Your task to perform on an android device: clear history in the chrome app Image 0: 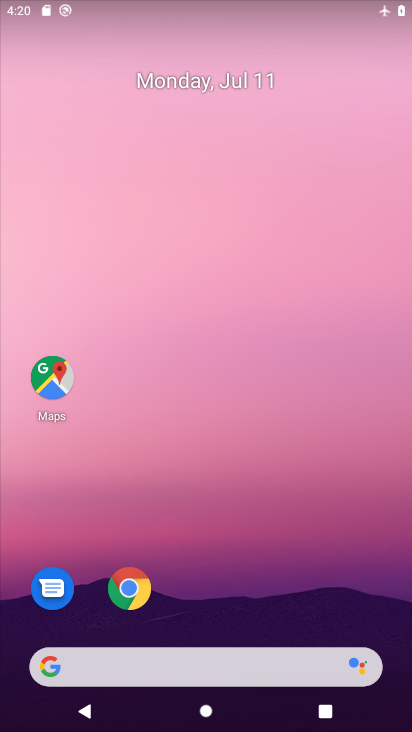
Step 0: drag from (346, 607) to (334, 190)
Your task to perform on an android device: clear history in the chrome app Image 1: 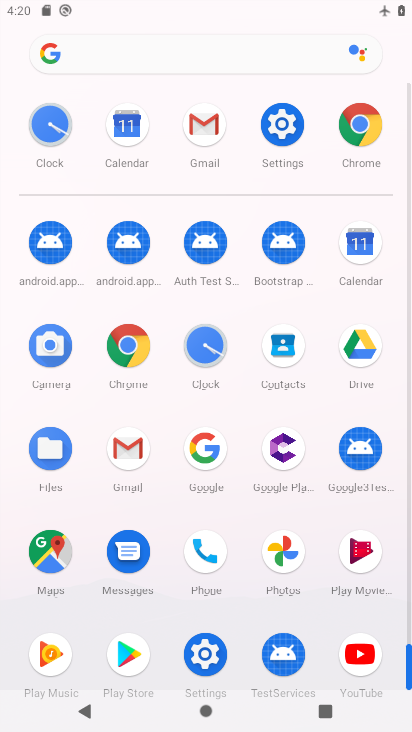
Step 1: click (139, 352)
Your task to perform on an android device: clear history in the chrome app Image 2: 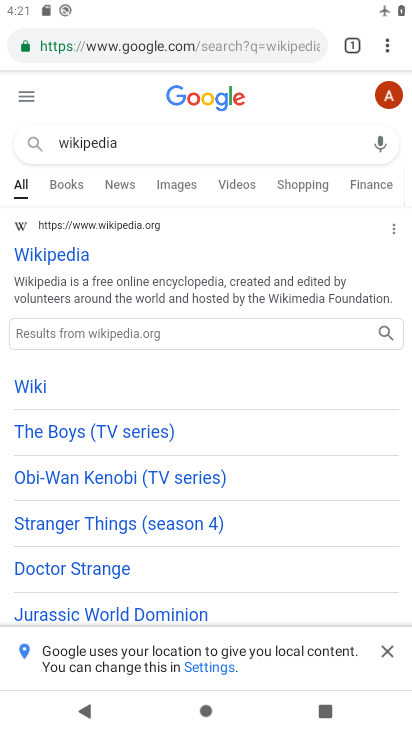
Step 2: click (383, 49)
Your task to perform on an android device: clear history in the chrome app Image 3: 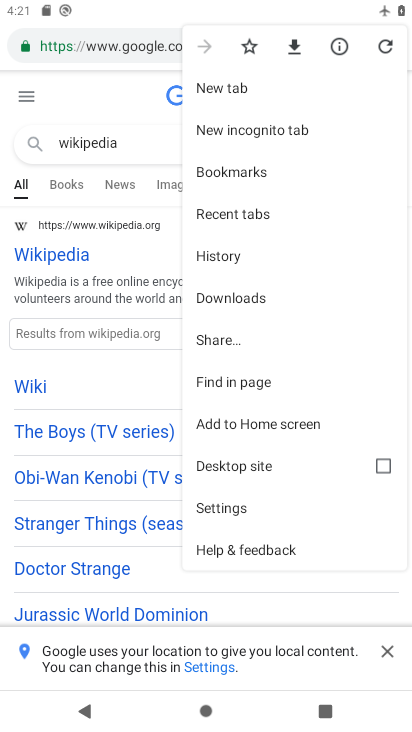
Step 3: click (237, 256)
Your task to perform on an android device: clear history in the chrome app Image 4: 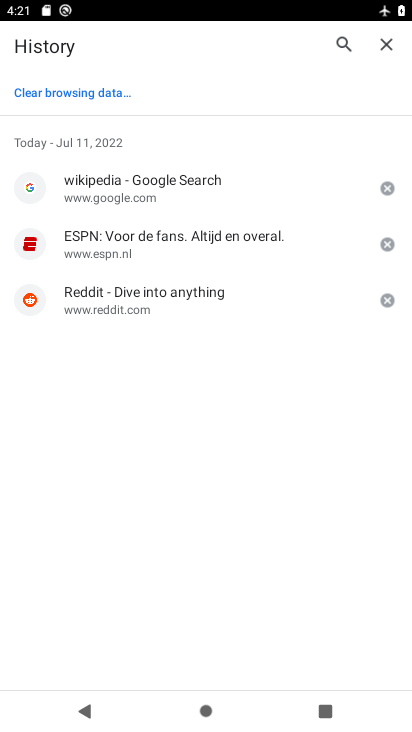
Step 4: click (110, 94)
Your task to perform on an android device: clear history in the chrome app Image 5: 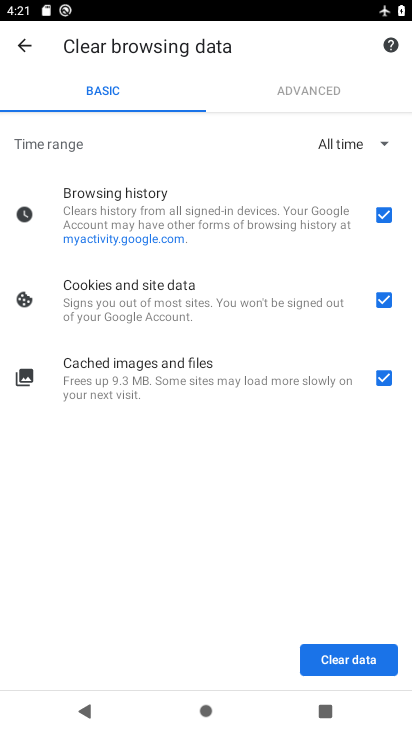
Step 5: click (334, 662)
Your task to perform on an android device: clear history in the chrome app Image 6: 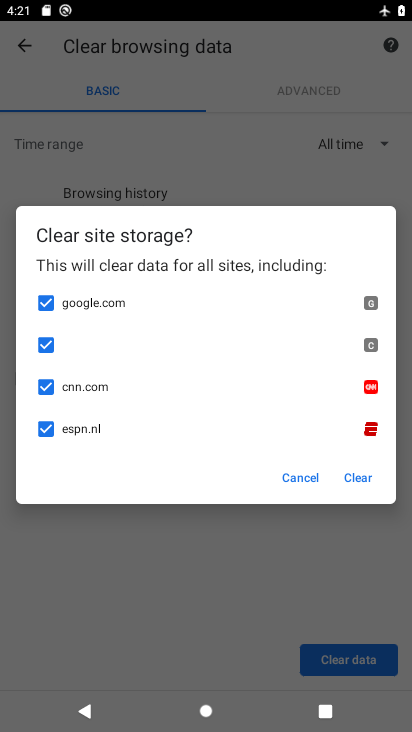
Step 6: click (351, 477)
Your task to perform on an android device: clear history in the chrome app Image 7: 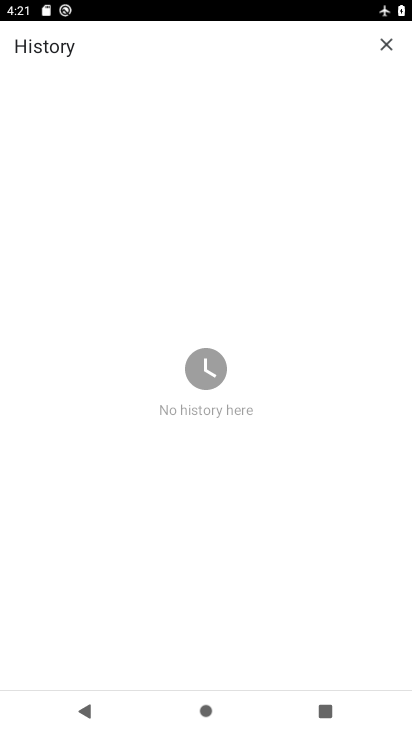
Step 7: task complete